Your task to perform on an android device: Open the web browser Image 0: 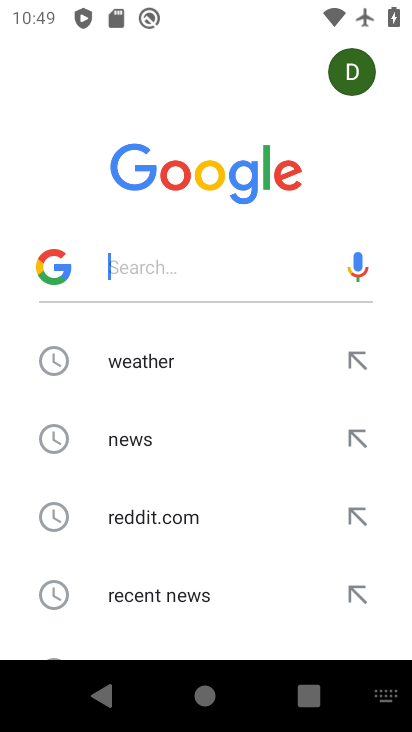
Step 0: press back button
Your task to perform on an android device: Open the web browser Image 1: 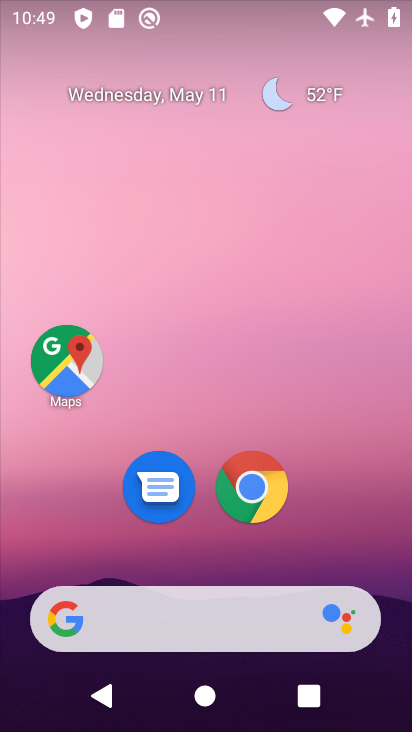
Step 1: drag from (330, 546) to (201, 2)
Your task to perform on an android device: Open the web browser Image 2: 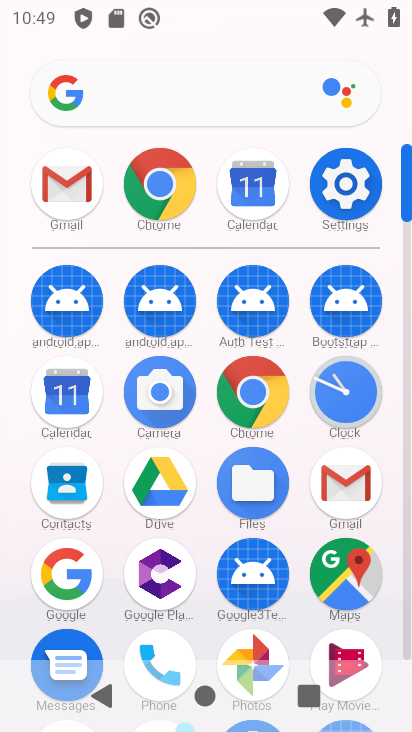
Step 2: click (154, 185)
Your task to perform on an android device: Open the web browser Image 3: 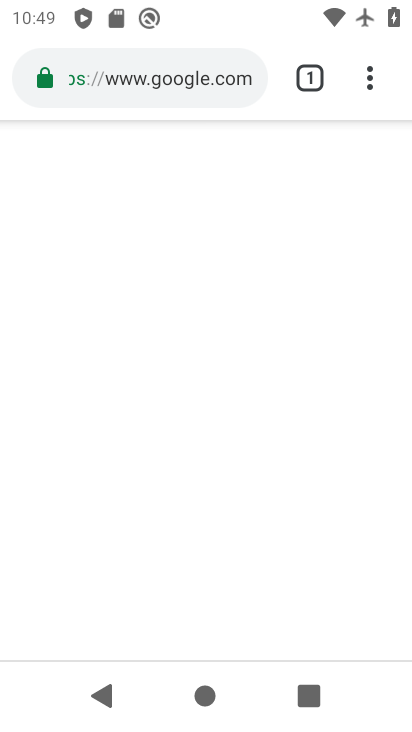
Step 3: click (176, 69)
Your task to perform on an android device: Open the web browser Image 4: 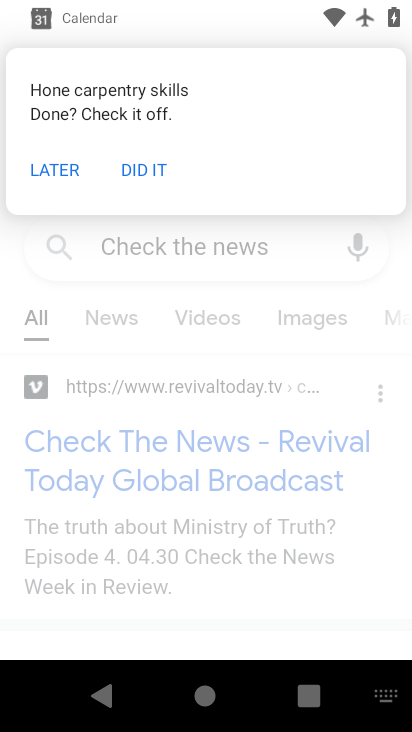
Step 4: click (60, 169)
Your task to perform on an android device: Open the web browser Image 5: 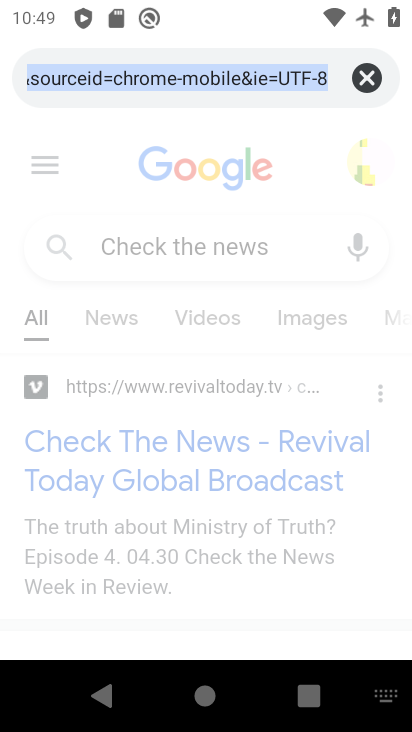
Step 5: click (368, 75)
Your task to perform on an android device: Open the web browser Image 6: 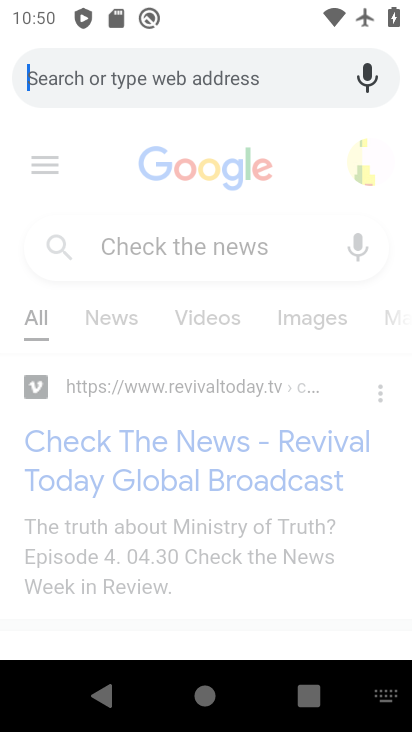
Step 6: task complete